Your task to perform on an android device: What's the weather today? Image 0: 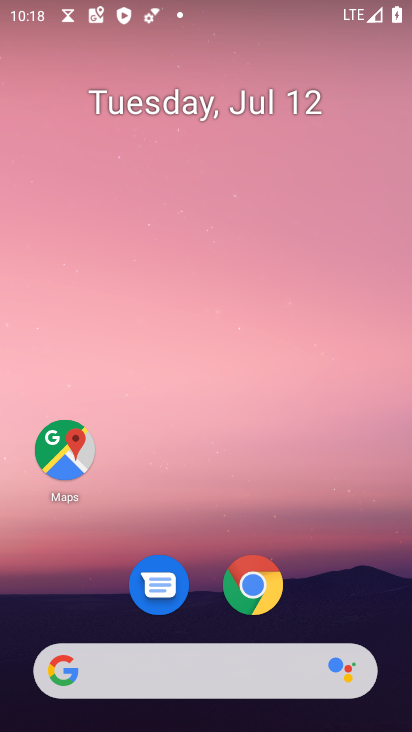
Step 0: press home button
Your task to perform on an android device: What's the weather today? Image 1: 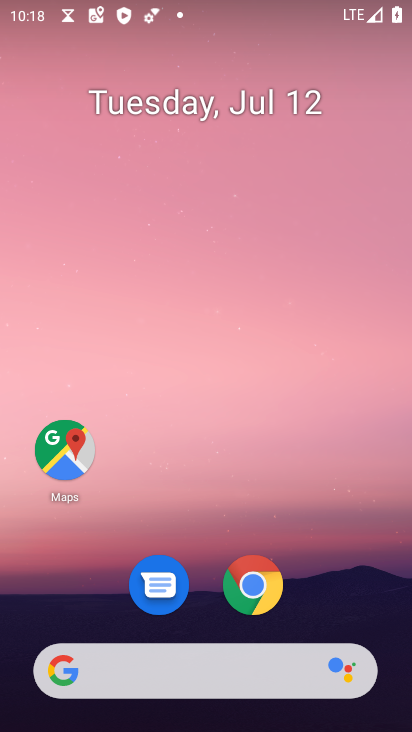
Step 1: click (176, 674)
Your task to perform on an android device: What's the weather today? Image 2: 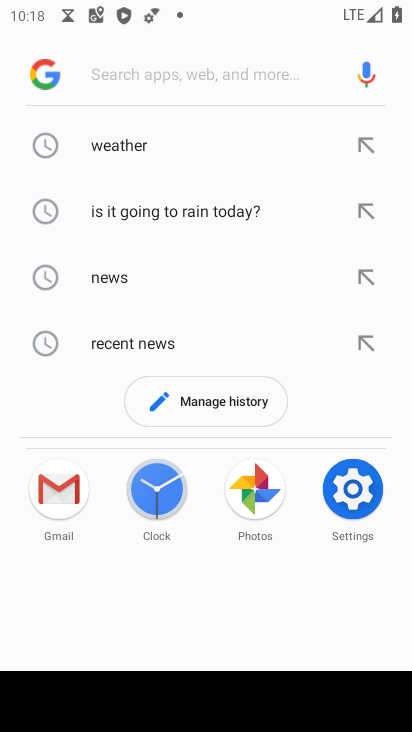
Step 2: click (132, 151)
Your task to perform on an android device: What's the weather today? Image 3: 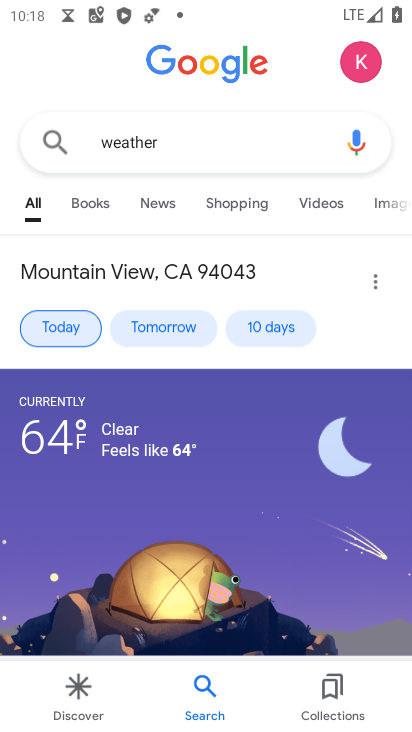
Step 3: task complete